Your task to perform on an android device: Open calendar and show me the second week of next month Image 0: 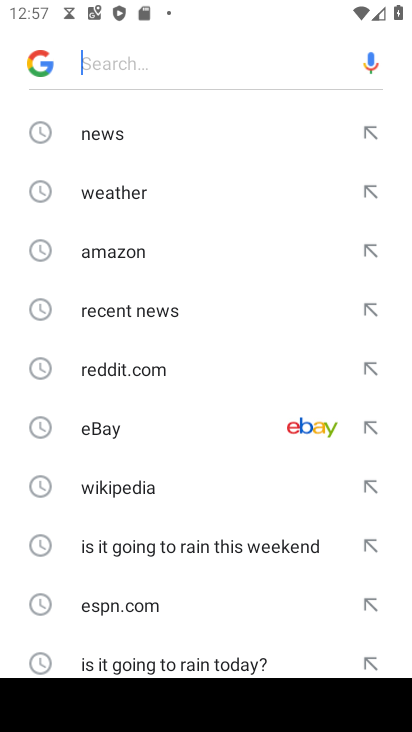
Step 0: press home button
Your task to perform on an android device: Open calendar and show me the second week of next month Image 1: 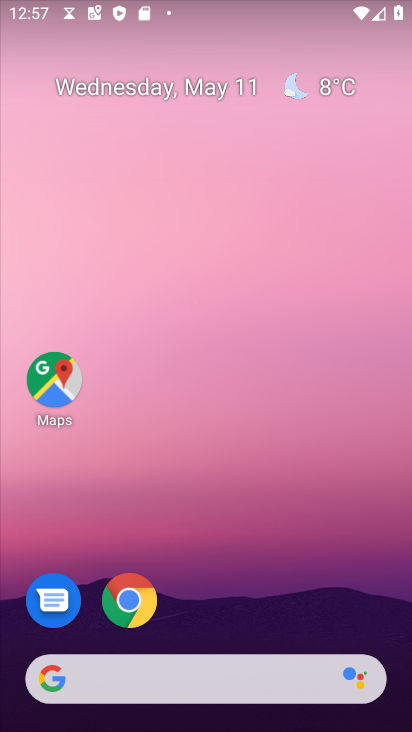
Step 1: drag from (284, 555) to (289, 24)
Your task to perform on an android device: Open calendar and show me the second week of next month Image 2: 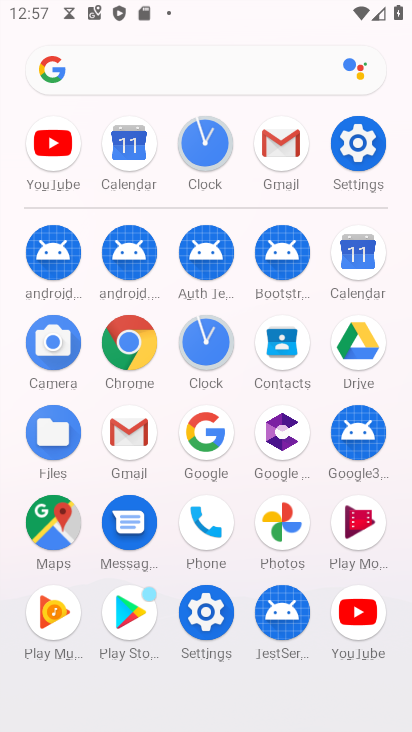
Step 2: click (353, 258)
Your task to perform on an android device: Open calendar and show me the second week of next month Image 3: 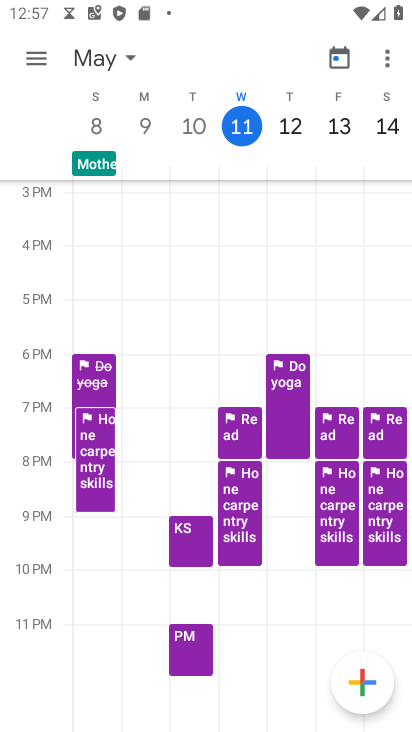
Step 3: click (126, 53)
Your task to perform on an android device: Open calendar and show me the second week of next month Image 4: 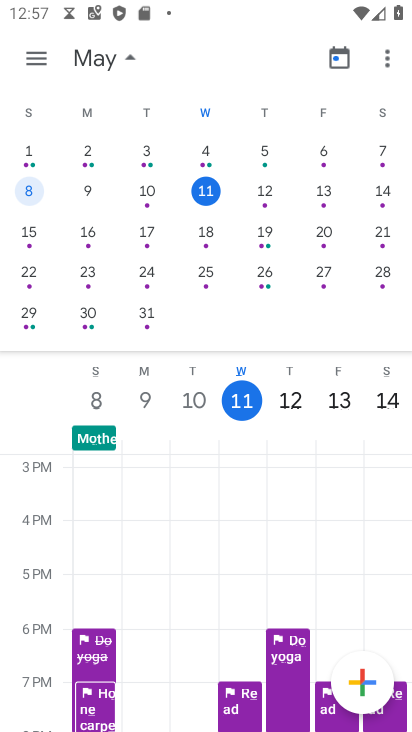
Step 4: drag from (348, 248) to (0, 234)
Your task to perform on an android device: Open calendar and show me the second week of next month Image 5: 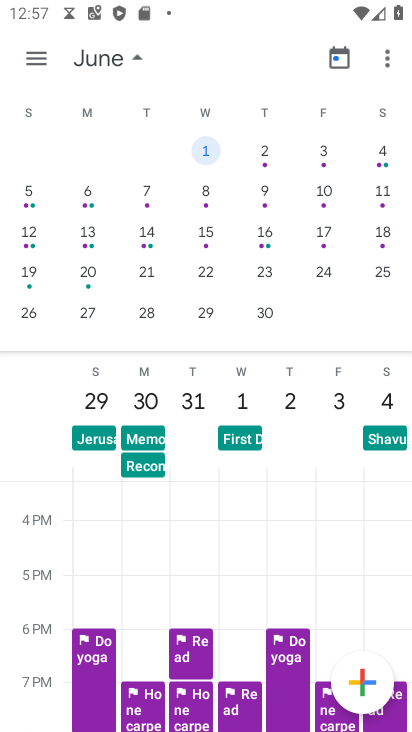
Step 5: click (41, 204)
Your task to perform on an android device: Open calendar and show me the second week of next month Image 6: 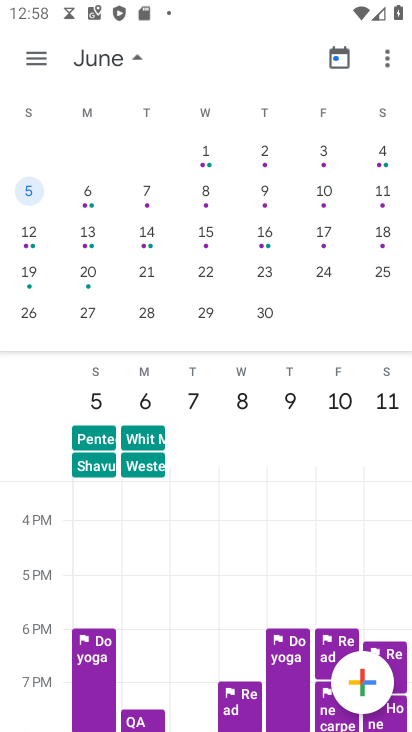
Step 6: task complete